Your task to perform on an android device: Show me recent news Image 0: 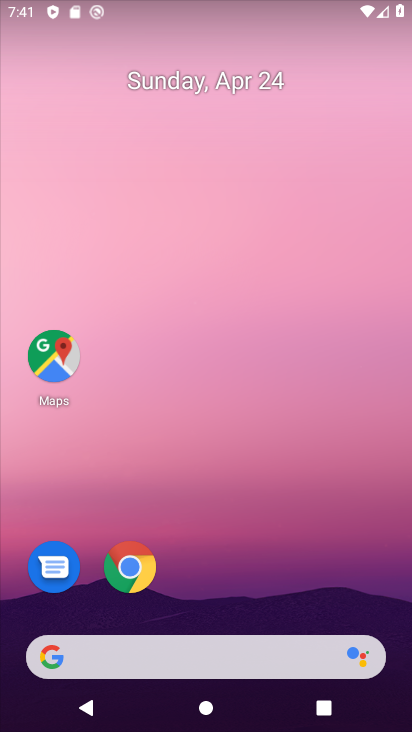
Step 0: drag from (25, 196) to (411, 250)
Your task to perform on an android device: Show me recent news Image 1: 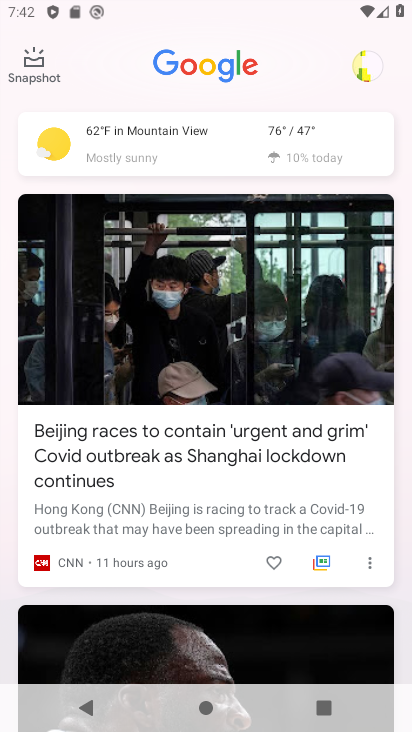
Step 1: task complete